Your task to perform on an android device: Go to accessibility settings Image 0: 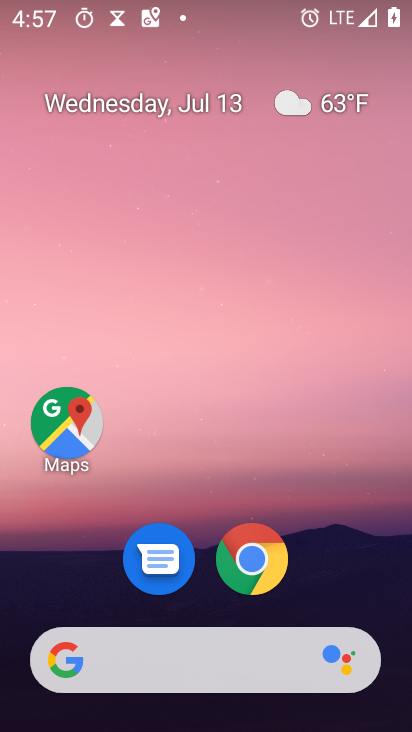
Step 0: drag from (390, 614) to (277, 135)
Your task to perform on an android device: Go to accessibility settings Image 1: 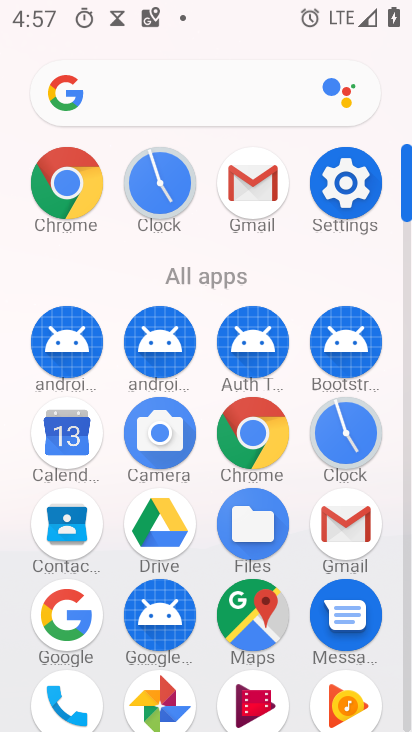
Step 1: click (355, 179)
Your task to perform on an android device: Go to accessibility settings Image 2: 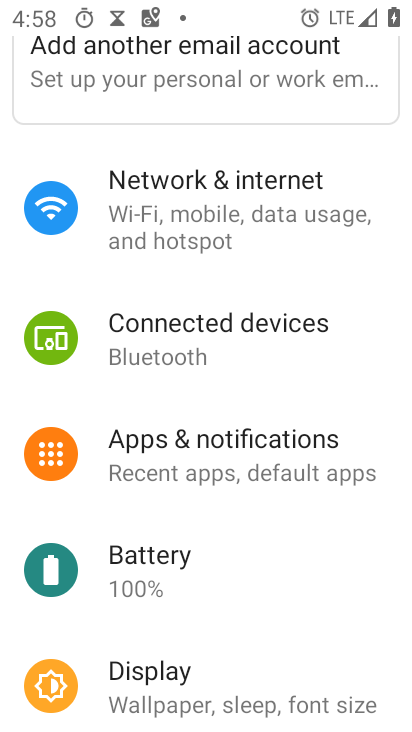
Step 2: drag from (341, 640) to (284, 190)
Your task to perform on an android device: Go to accessibility settings Image 3: 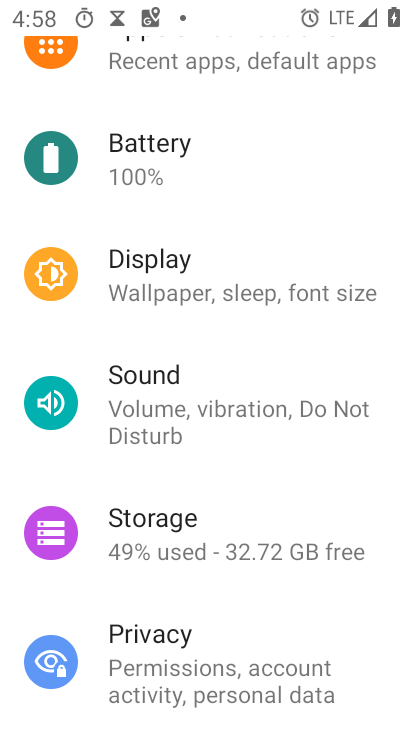
Step 3: drag from (331, 594) to (257, 184)
Your task to perform on an android device: Go to accessibility settings Image 4: 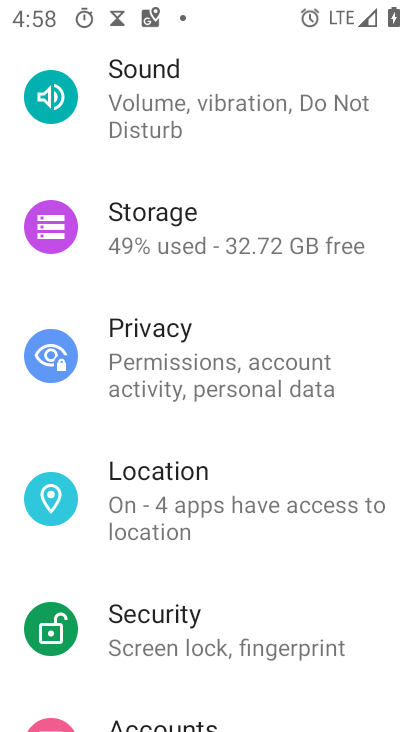
Step 4: drag from (301, 565) to (220, 226)
Your task to perform on an android device: Go to accessibility settings Image 5: 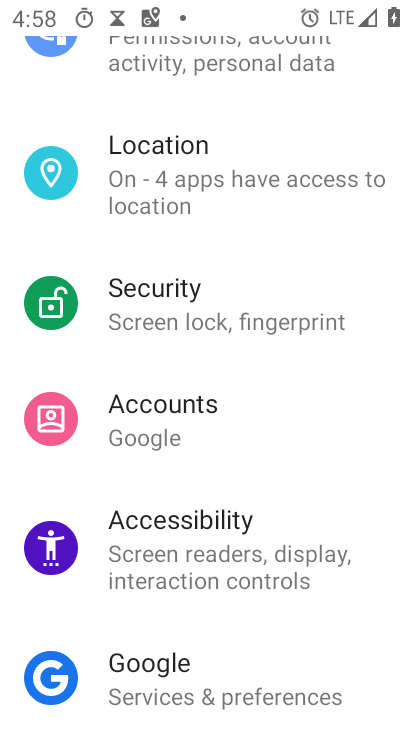
Step 5: click (258, 559)
Your task to perform on an android device: Go to accessibility settings Image 6: 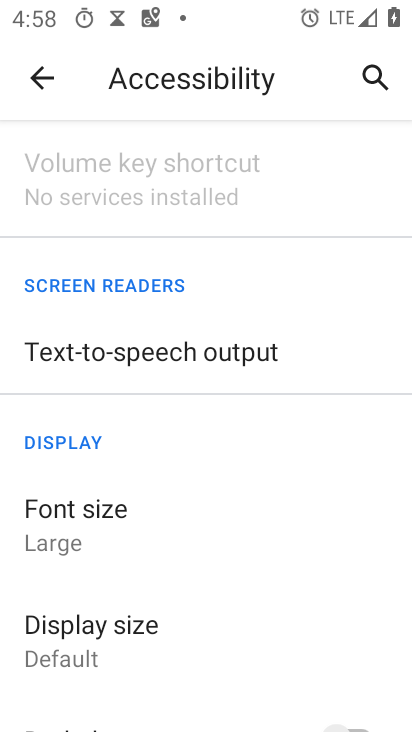
Step 6: task complete